Your task to perform on an android device: Go to notification settings Image 0: 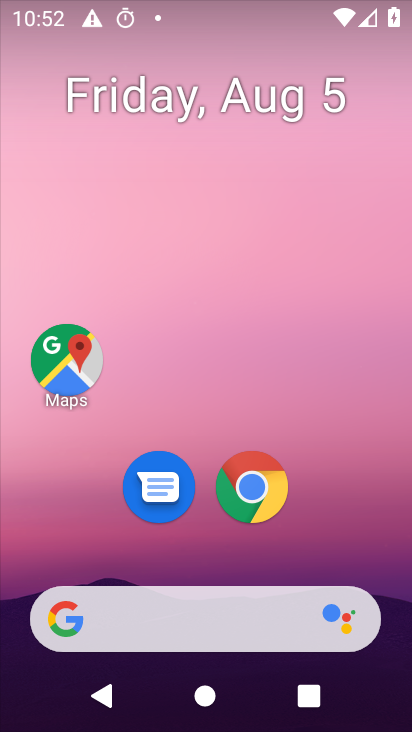
Step 0: drag from (180, 589) to (275, 18)
Your task to perform on an android device: Go to notification settings Image 1: 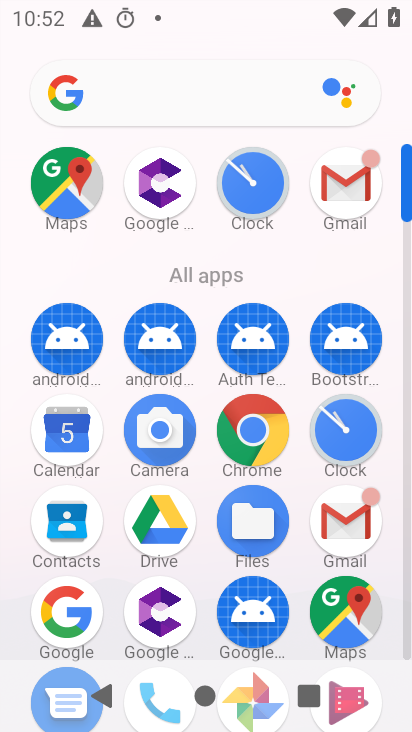
Step 1: drag from (185, 636) to (260, 134)
Your task to perform on an android device: Go to notification settings Image 2: 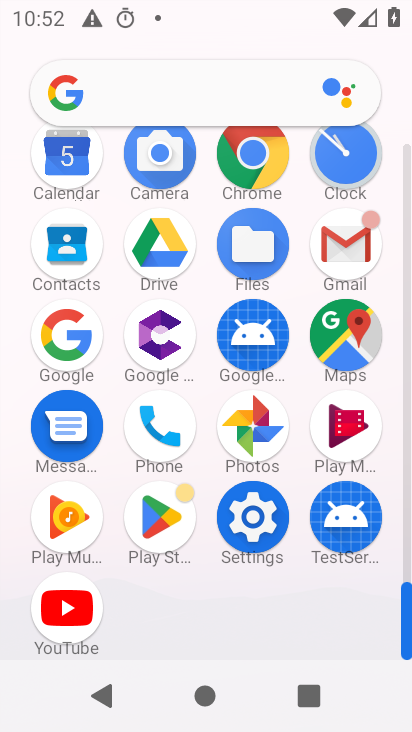
Step 2: click (243, 506)
Your task to perform on an android device: Go to notification settings Image 3: 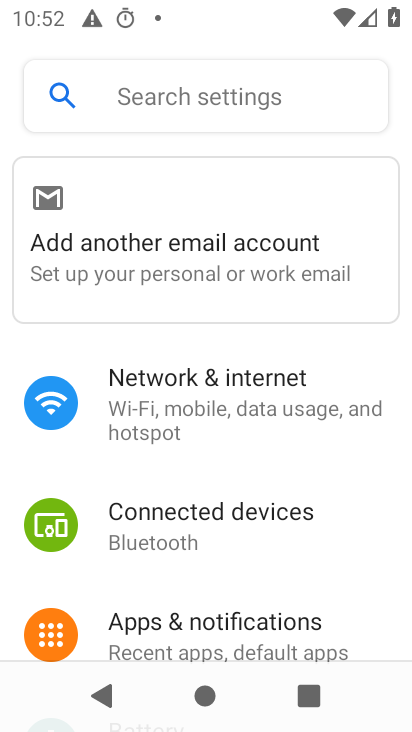
Step 3: click (230, 620)
Your task to perform on an android device: Go to notification settings Image 4: 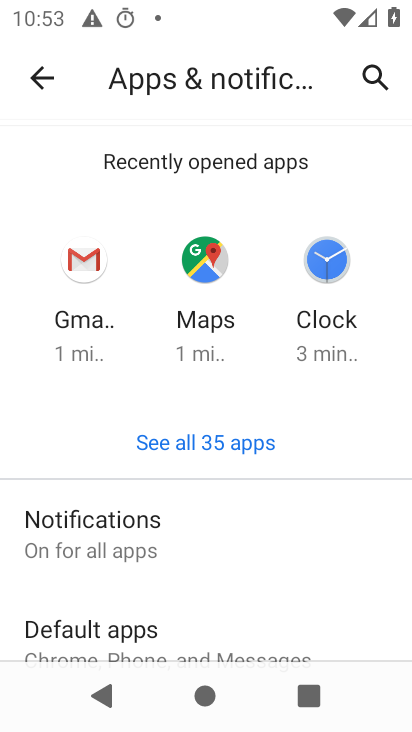
Step 4: task complete